Your task to perform on an android device: Go to Google maps Image 0: 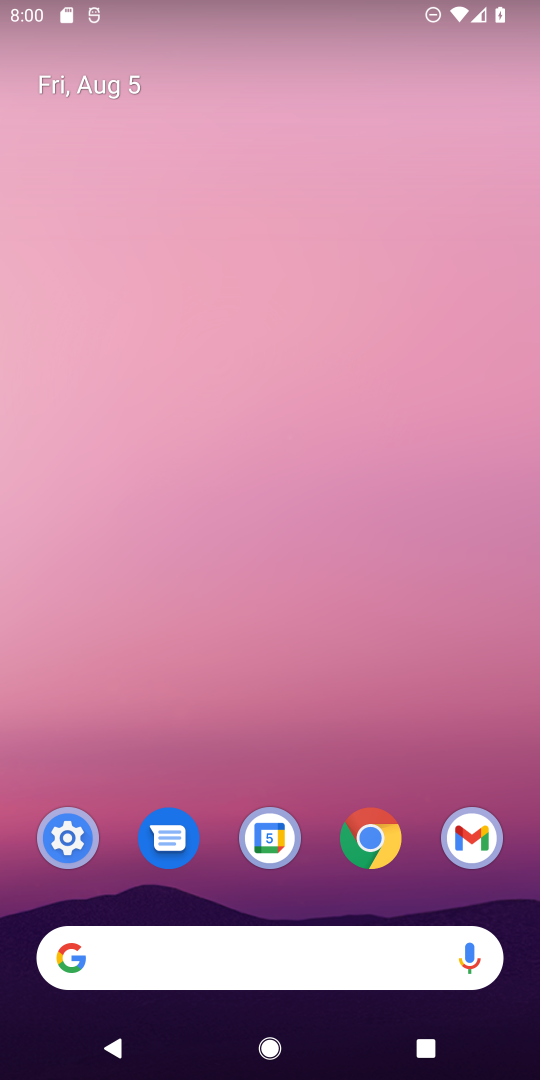
Step 0: drag from (219, 749) to (232, 500)
Your task to perform on an android device: Go to Google maps Image 1: 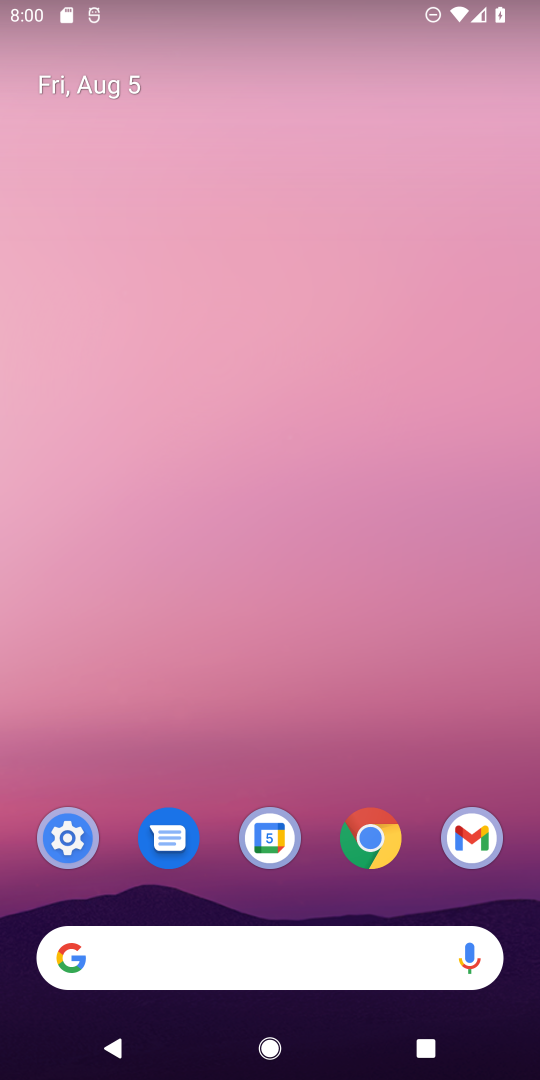
Step 1: drag from (278, 943) to (316, 256)
Your task to perform on an android device: Go to Google maps Image 2: 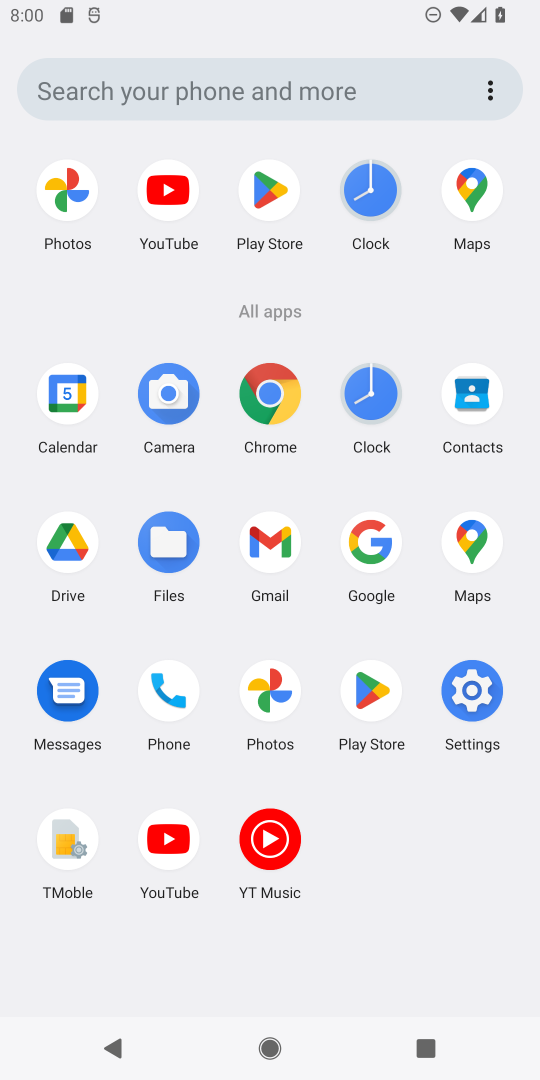
Step 2: click (449, 555)
Your task to perform on an android device: Go to Google maps Image 3: 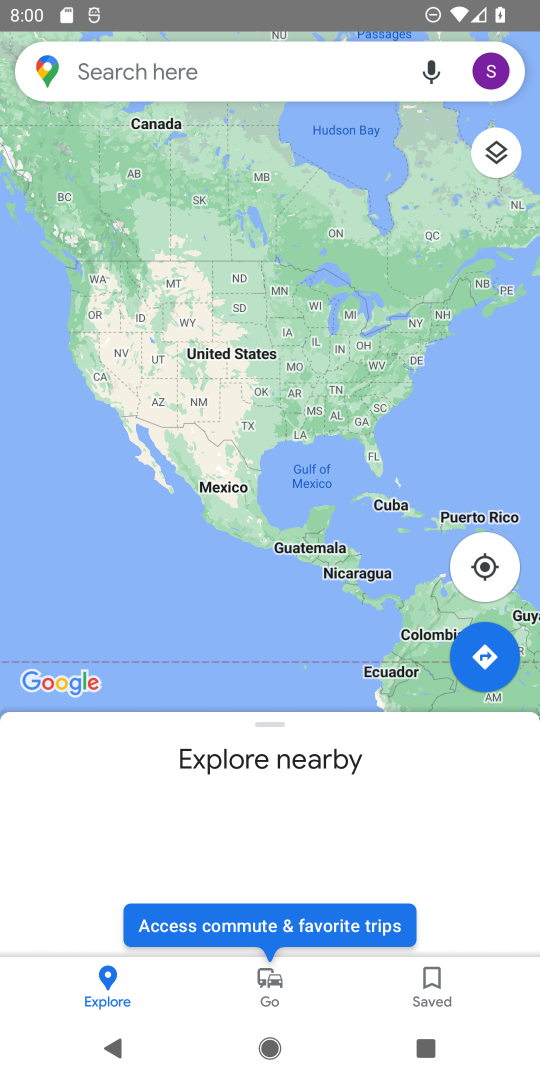
Step 3: task complete